Your task to perform on an android device: allow cookies in the chrome app Image 0: 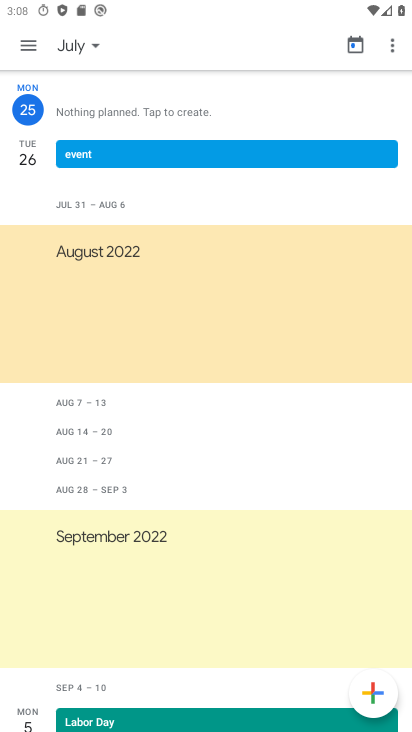
Step 0: press back button
Your task to perform on an android device: allow cookies in the chrome app Image 1: 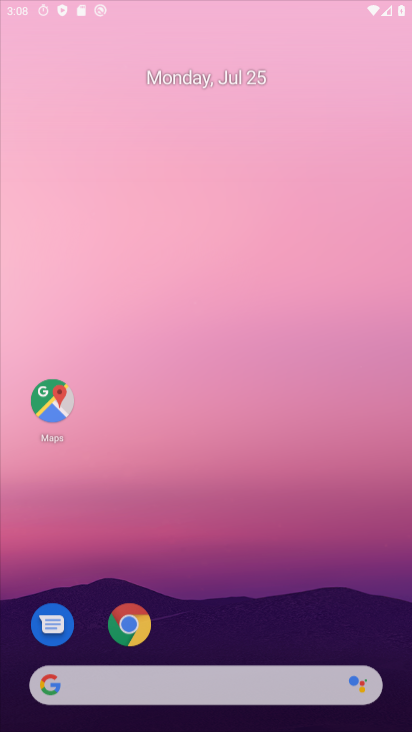
Step 1: press back button
Your task to perform on an android device: allow cookies in the chrome app Image 2: 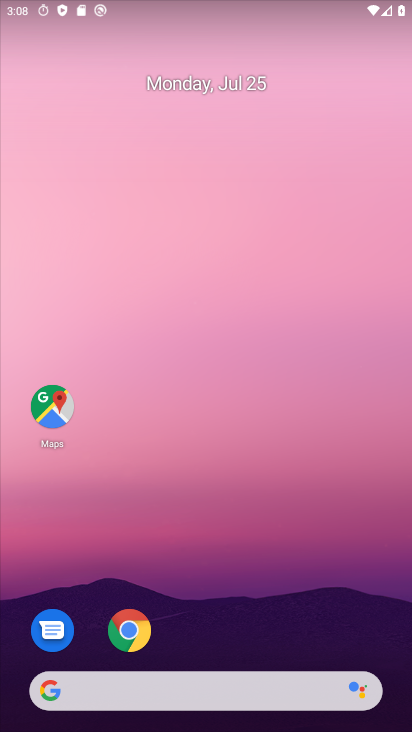
Step 2: drag from (240, 487) to (235, 78)
Your task to perform on an android device: allow cookies in the chrome app Image 3: 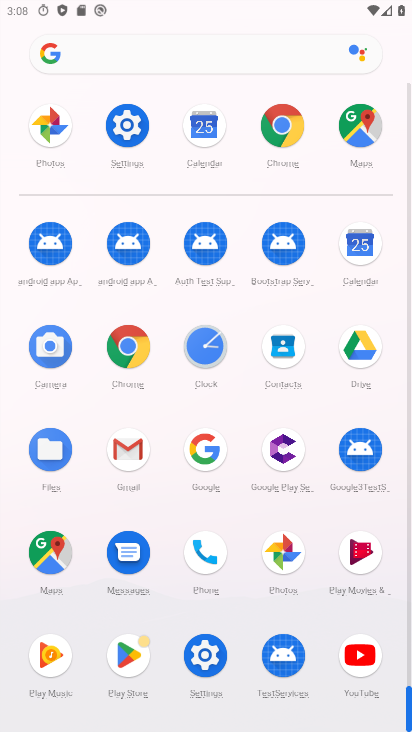
Step 3: click (295, 110)
Your task to perform on an android device: allow cookies in the chrome app Image 4: 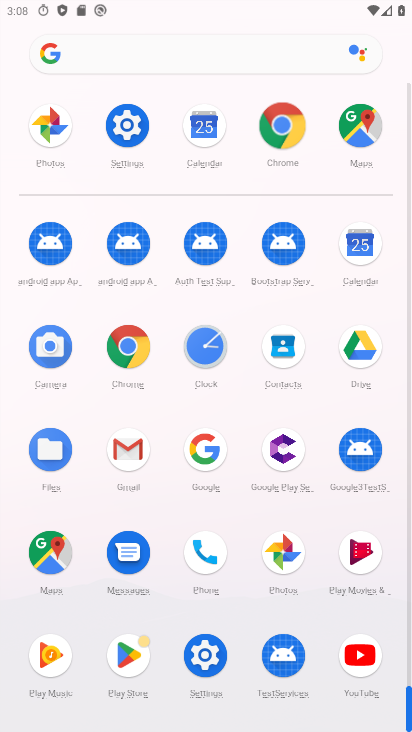
Step 4: click (289, 118)
Your task to perform on an android device: allow cookies in the chrome app Image 5: 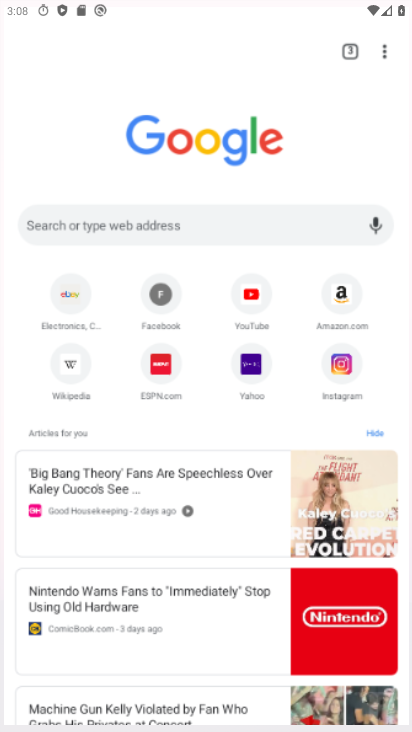
Step 5: click (287, 116)
Your task to perform on an android device: allow cookies in the chrome app Image 6: 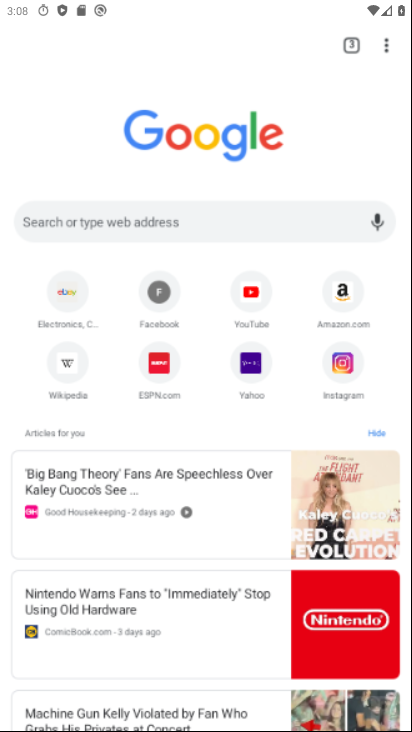
Step 6: click (297, 112)
Your task to perform on an android device: allow cookies in the chrome app Image 7: 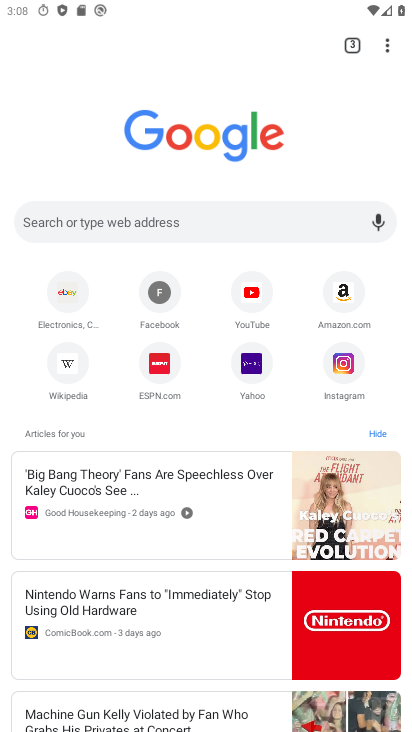
Step 7: drag from (389, 43) to (209, 381)
Your task to perform on an android device: allow cookies in the chrome app Image 8: 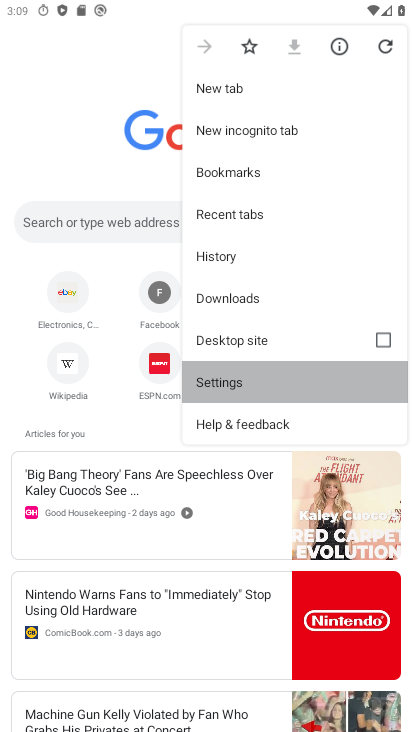
Step 8: click (209, 380)
Your task to perform on an android device: allow cookies in the chrome app Image 9: 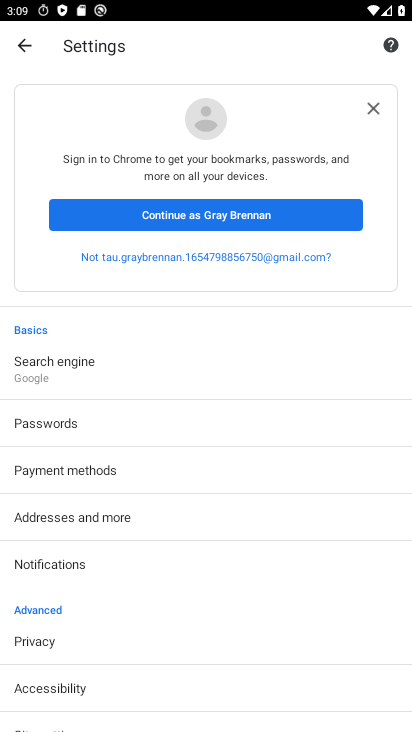
Step 9: drag from (68, 609) to (55, 380)
Your task to perform on an android device: allow cookies in the chrome app Image 10: 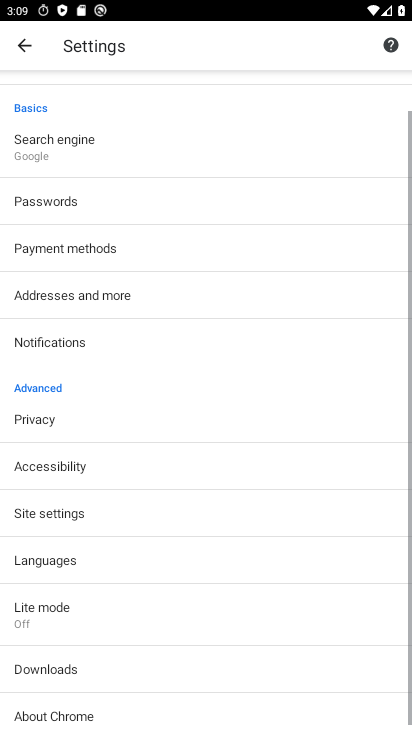
Step 10: drag from (113, 554) to (115, 271)
Your task to perform on an android device: allow cookies in the chrome app Image 11: 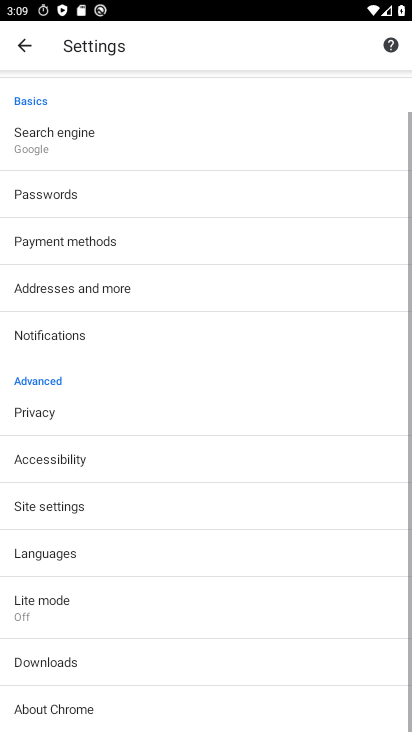
Step 11: click (111, 476)
Your task to perform on an android device: allow cookies in the chrome app Image 12: 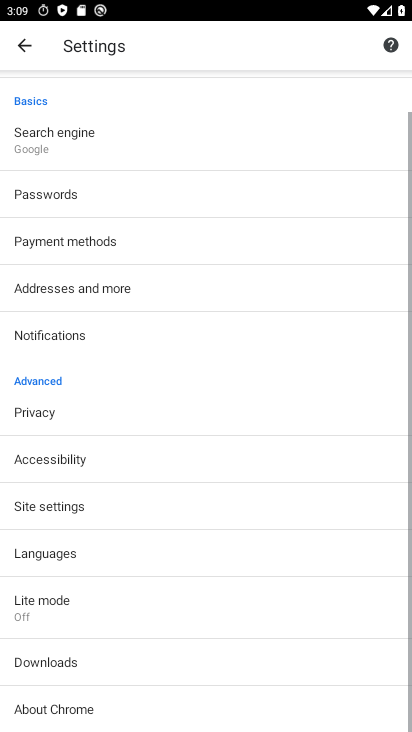
Step 12: click (52, 504)
Your task to perform on an android device: allow cookies in the chrome app Image 13: 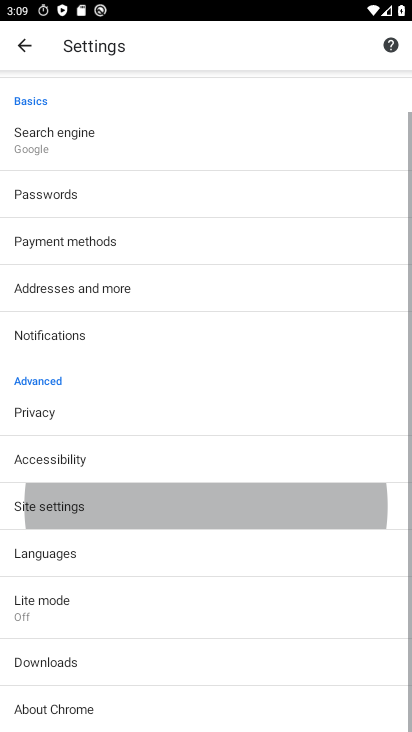
Step 13: click (53, 503)
Your task to perform on an android device: allow cookies in the chrome app Image 14: 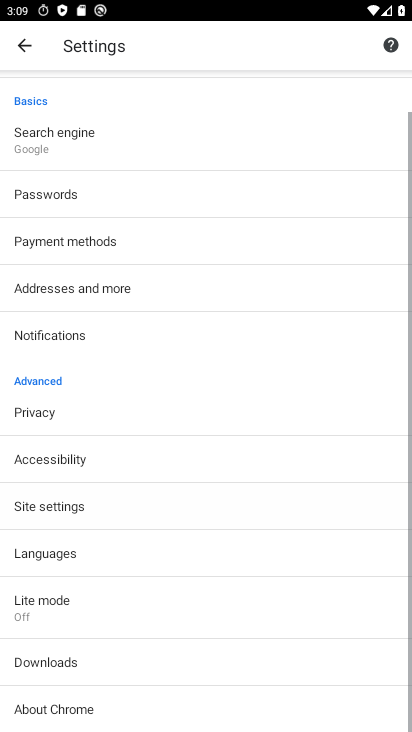
Step 14: click (54, 503)
Your task to perform on an android device: allow cookies in the chrome app Image 15: 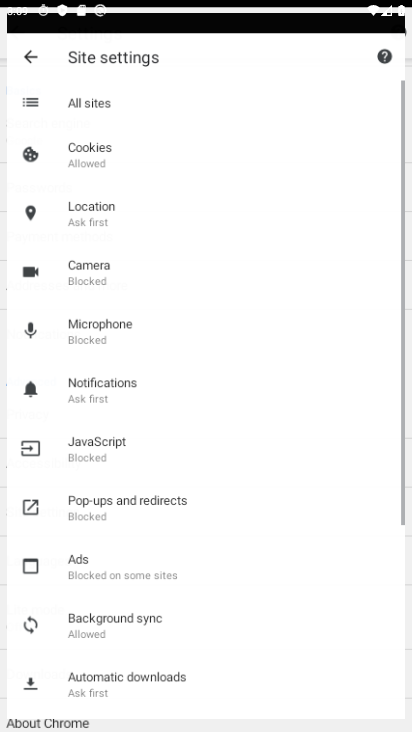
Step 15: click (55, 504)
Your task to perform on an android device: allow cookies in the chrome app Image 16: 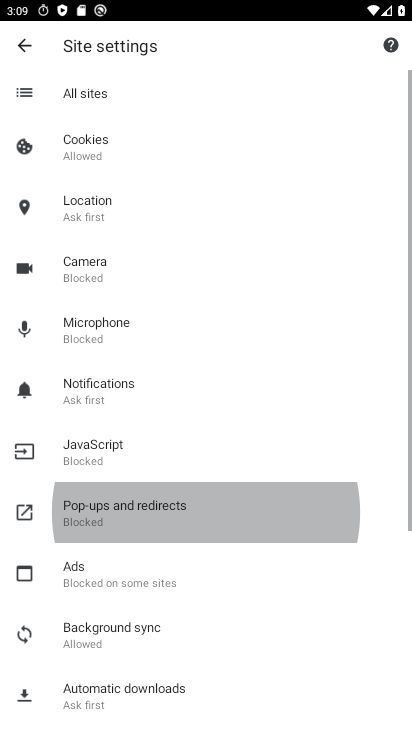
Step 16: click (58, 506)
Your task to perform on an android device: allow cookies in the chrome app Image 17: 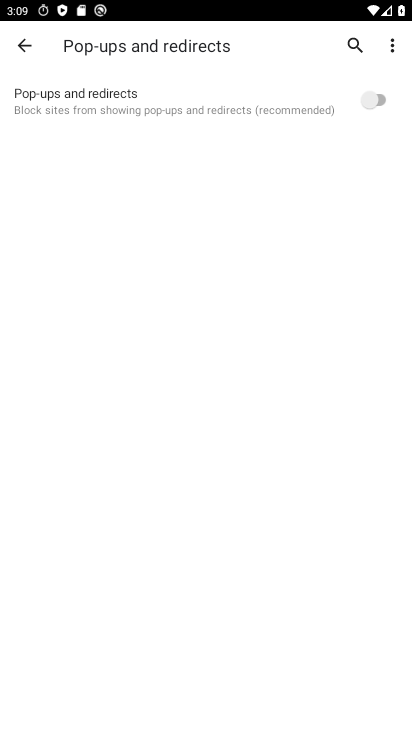
Step 17: click (17, 38)
Your task to perform on an android device: allow cookies in the chrome app Image 18: 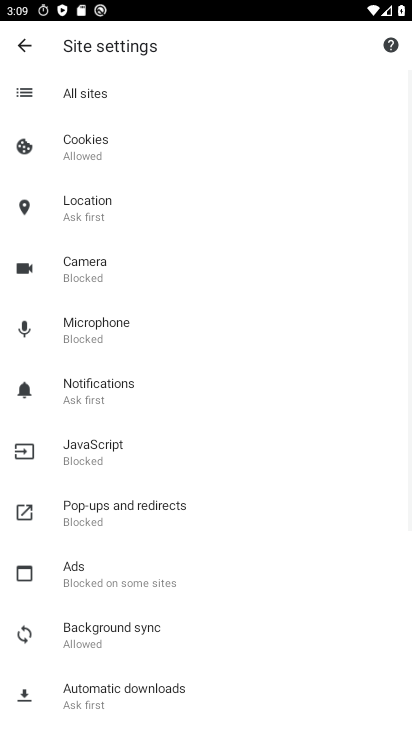
Step 18: click (92, 149)
Your task to perform on an android device: allow cookies in the chrome app Image 19: 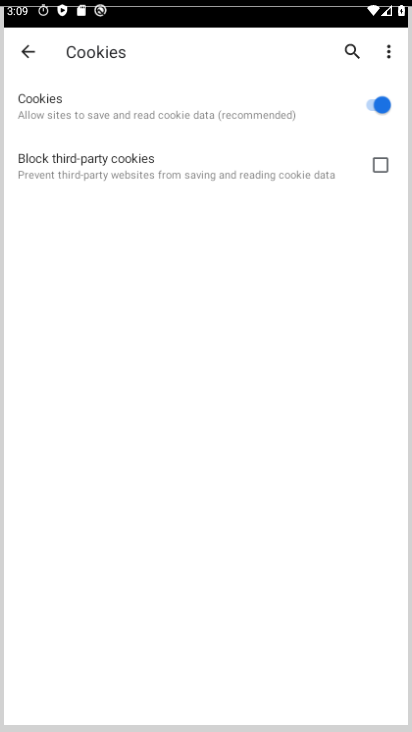
Step 19: click (92, 150)
Your task to perform on an android device: allow cookies in the chrome app Image 20: 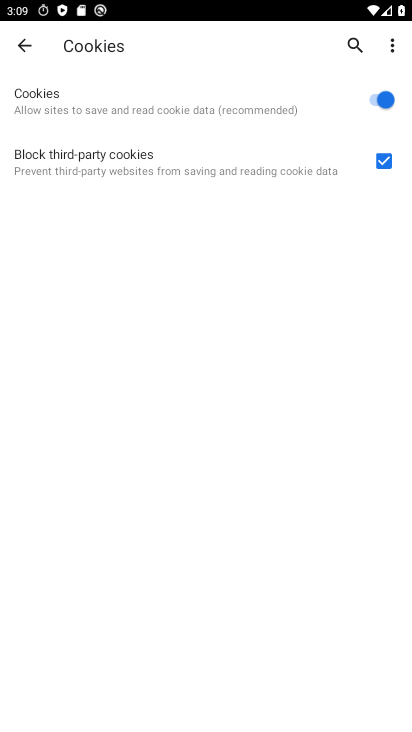
Step 20: click (384, 106)
Your task to perform on an android device: allow cookies in the chrome app Image 21: 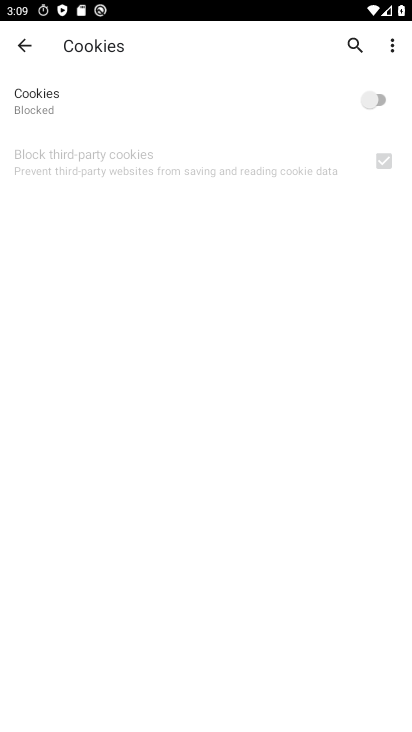
Step 21: task complete